Your task to perform on an android device: empty trash in google photos Image 0: 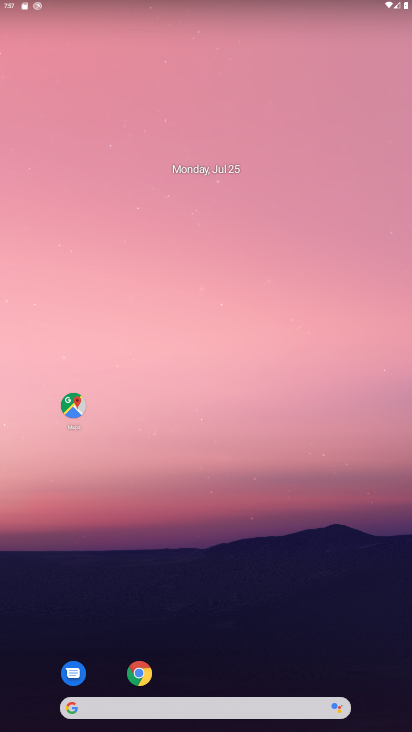
Step 0: drag from (277, 577) to (225, 93)
Your task to perform on an android device: empty trash in google photos Image 1: 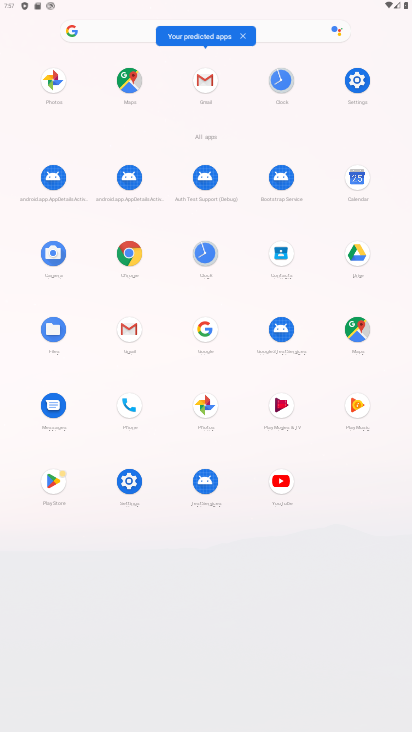
Step 1: click (205, 400)
Your task to perform on an android device: empty trash in google photos Image 2: 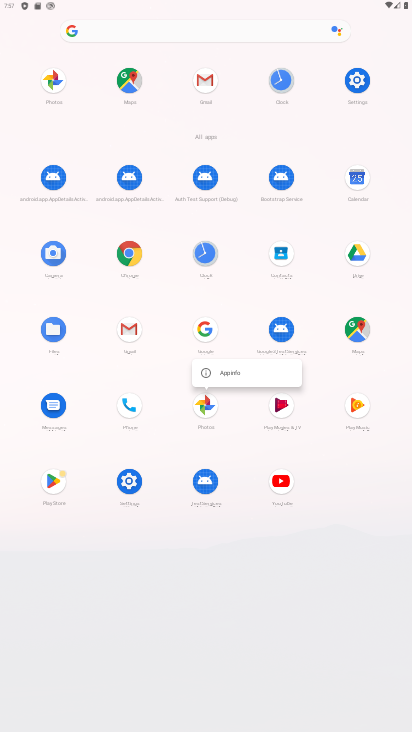
Step 2: click (201, 411)
Your task to perform on an android device: empty trash in google photos Image 3: 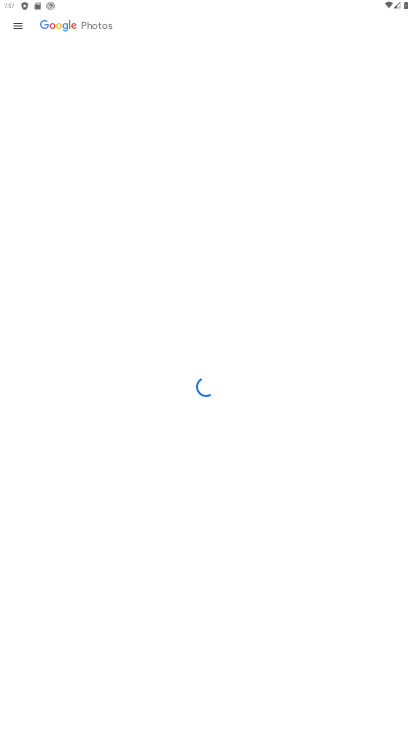
Step 3: click (17, 26)
Your task to perform on an android device: empty trash in google photos Image 4: 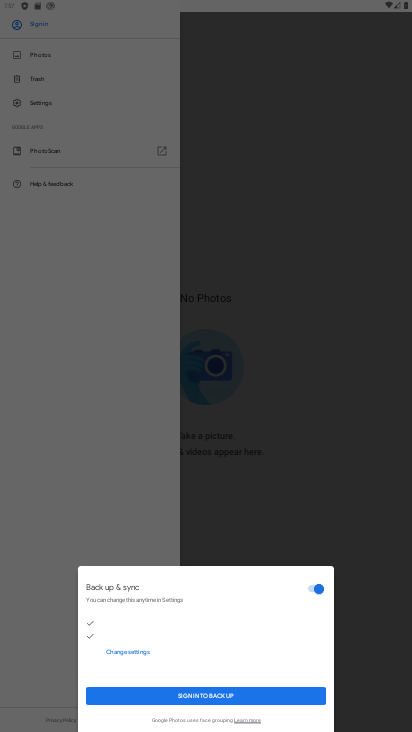
Step 4: click (211, 692)
Your task to perform on an android device: empty trash in google photos Image 5: 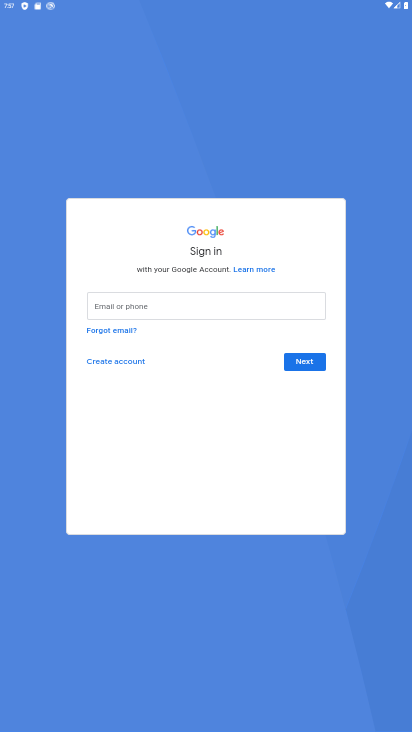
Step 5: task complete